Your task to perform on an android device: see tabs open on other devices in the chrome app Image 0: 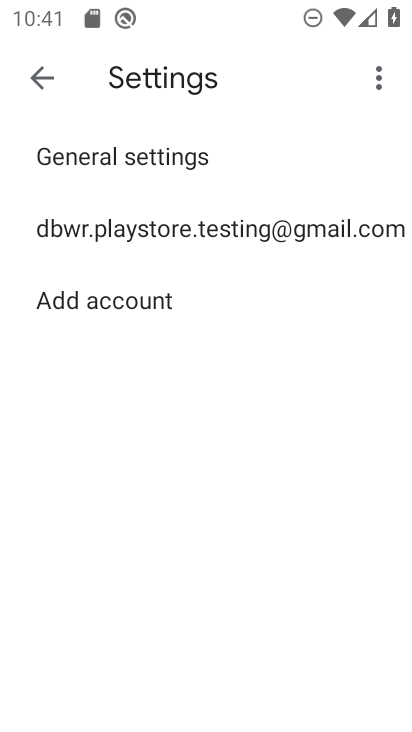
Step 0: press back button
Your task to perform on an android device: see tabs open on other devices in the chrome app Image 1: 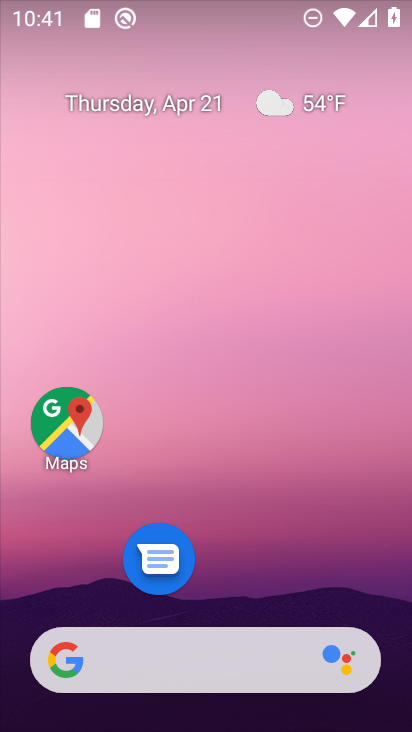
Step 1: drag from (276, 601) to (276, 107)
Your task to perform on an android device: see tabs open on other devices in the chrome app Image 2: 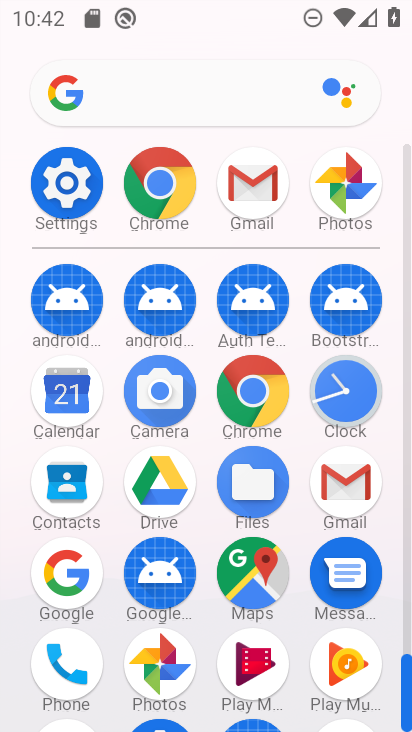
Step 2: click (252, 402)
Your task to perform on an android device: see tabs open on other devices in the chrome app Image 3: 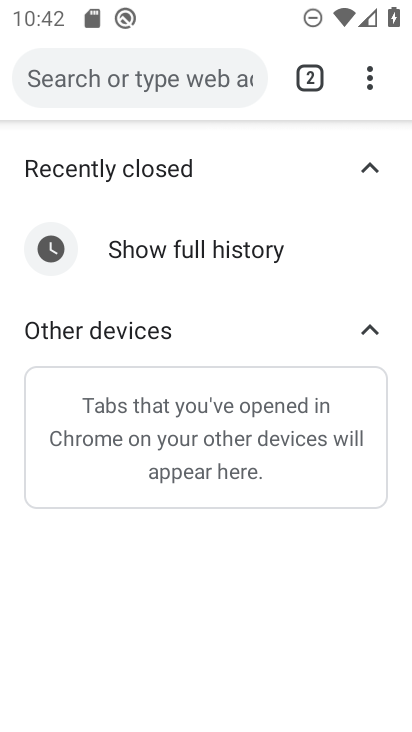
Step 3: task complete